Your task to perform on an android device: Open calendar and show me the third week of next month Image 0: 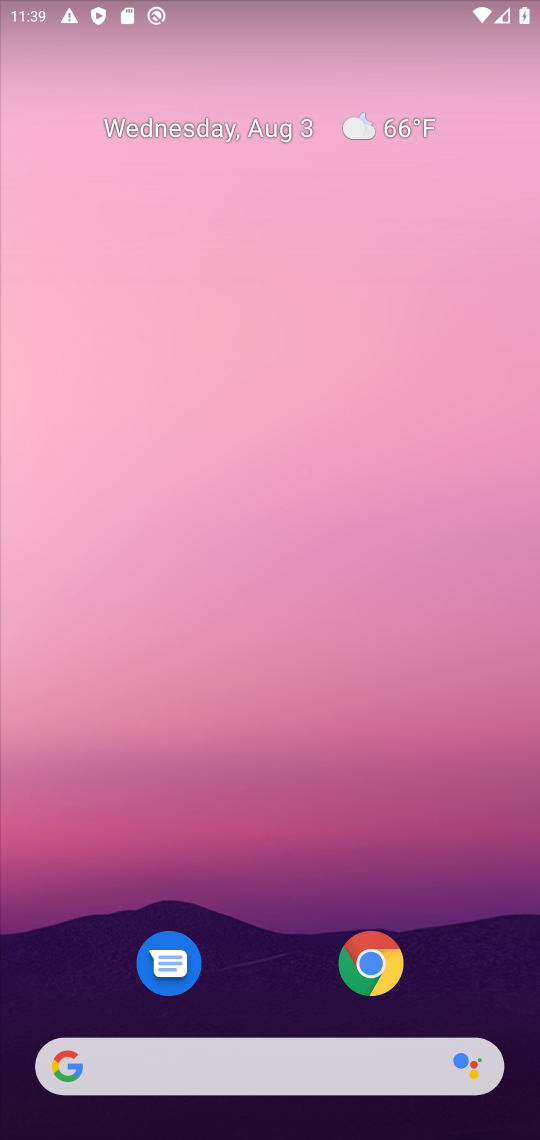
Step 0: drag from (209, 1005) to (332, 347)
Your task to perform on an android device: Open calendar and show me the third week of next month Image 1: 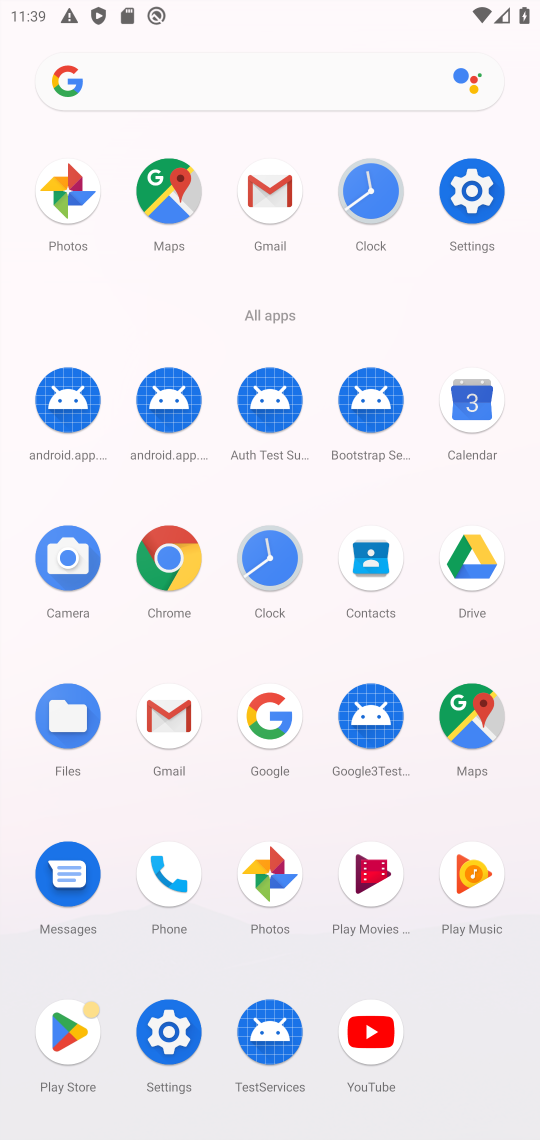
Step 1: click (473, 374)
Your task to perform on an android device: Open calendar and show me the third week of next month Image 2: 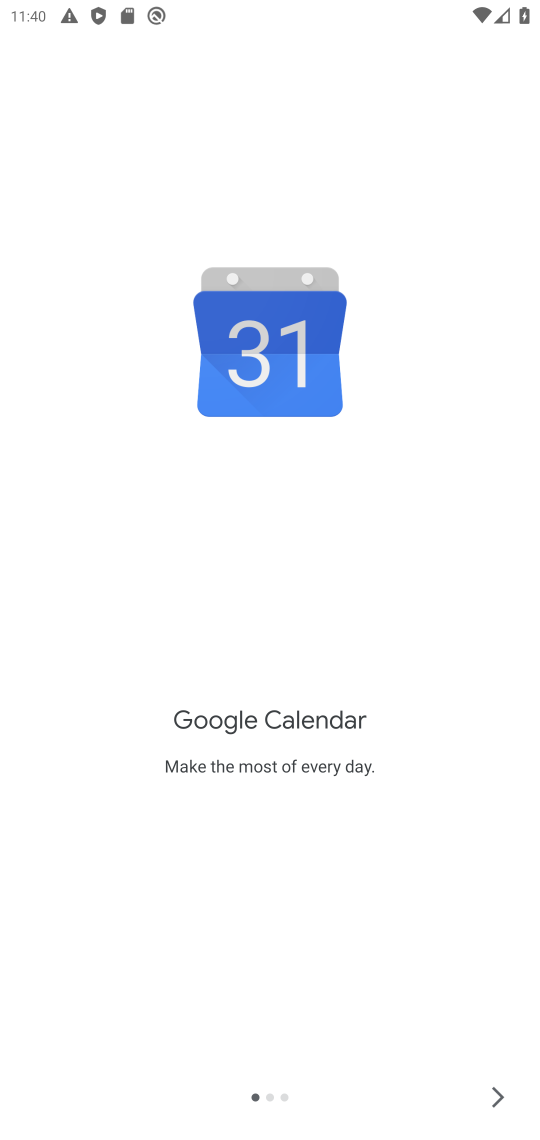
Step 2: click (499, 1088)
Your task to perform on an android device: Open calendar and show me the third week of next month Image 3: 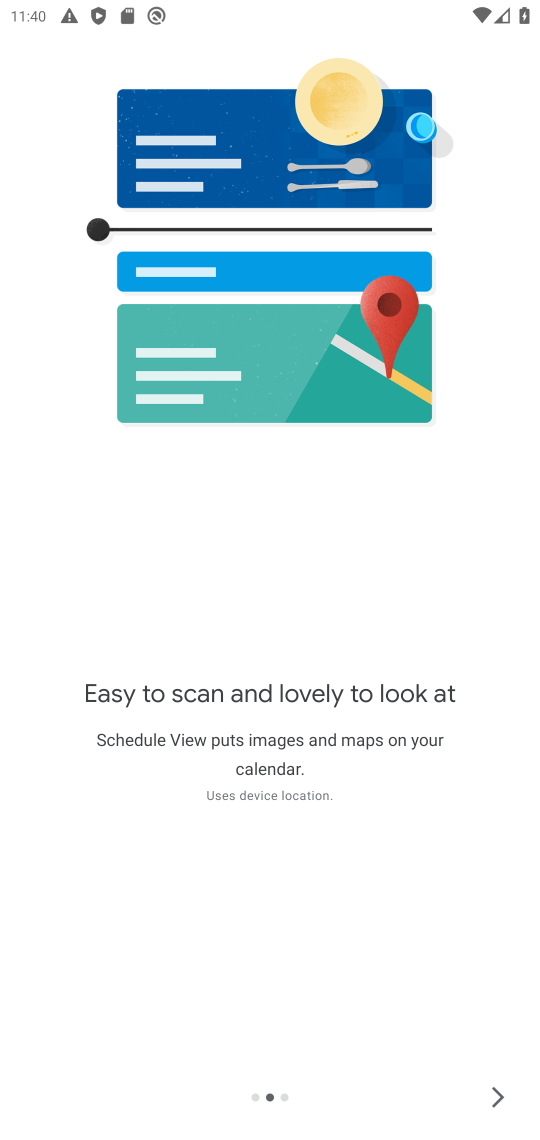
Step 3: click (499, 1088)
Your task to perform on an android device: Open calendar and show me the third week of next month Image 4: 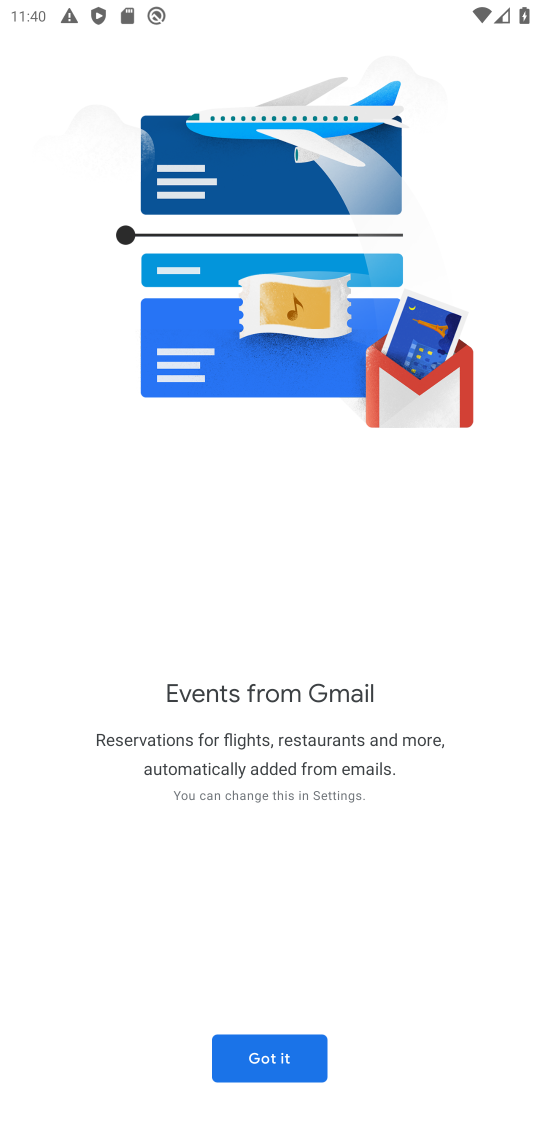
Step 4: click (255, 1041)
Your task to perform on an android device: Open calendar and show me the third week of next month Image 5: 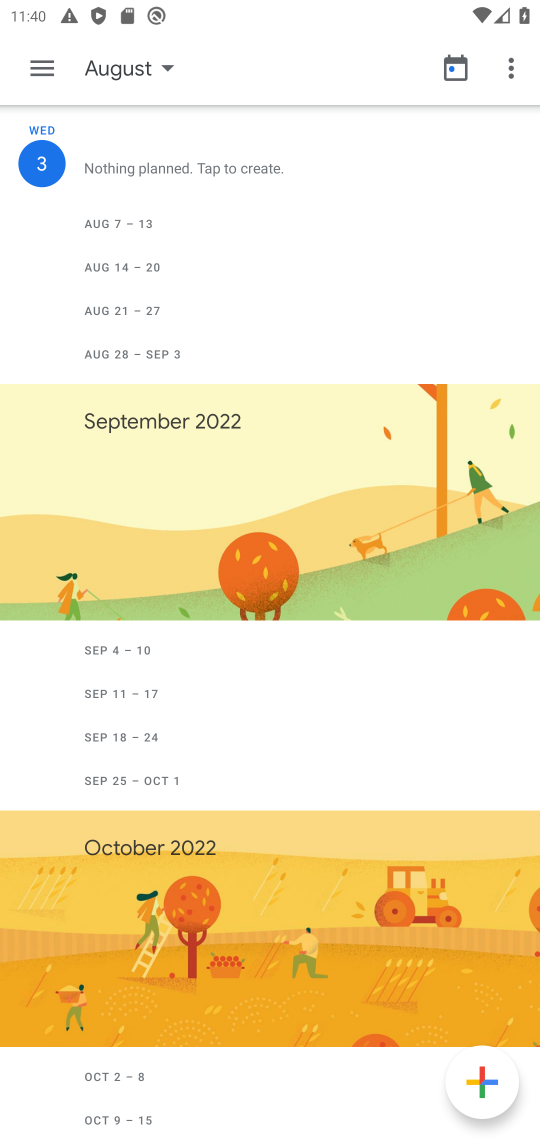
Step 5: click (37, 58)
Your task to perform on an android device: Open calendar and show me the third week of next month Image 6: 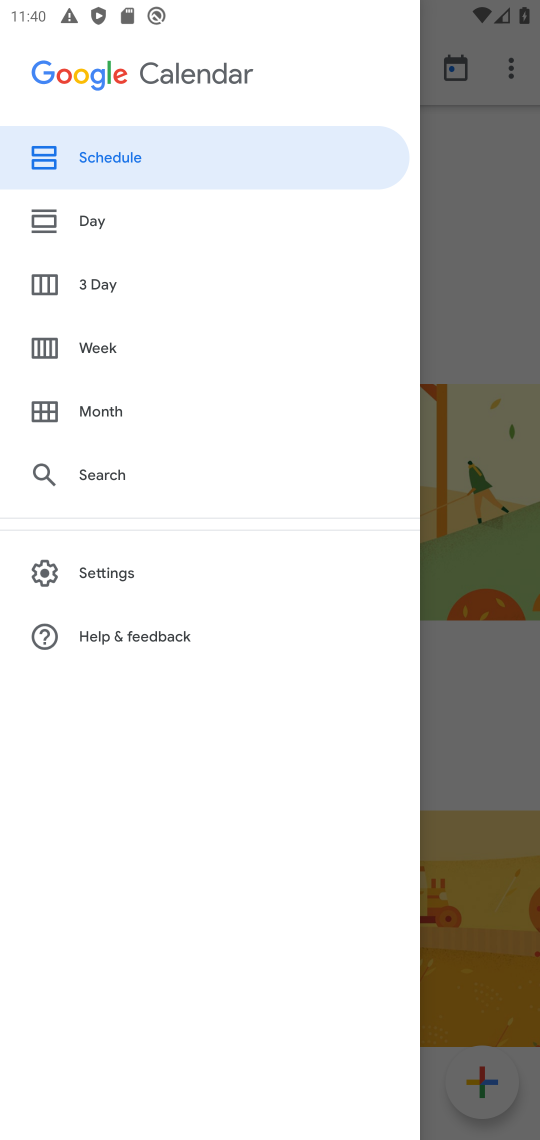
Step 6: click (128, 401)
Your task to perform on an android device: Open calendar and show me the third week of next month Image 7: 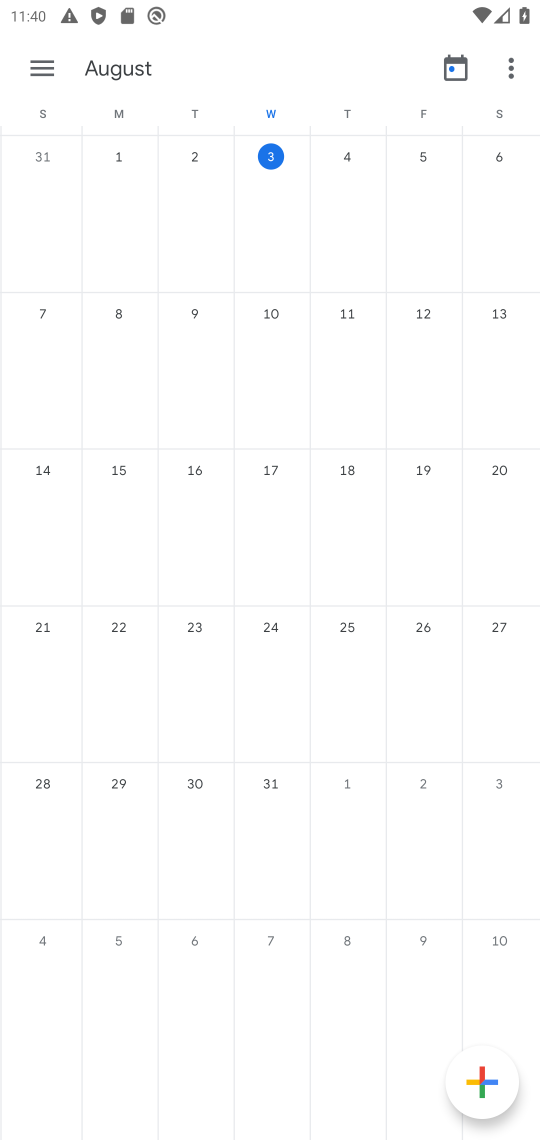
Step 7: click (43, 74)
Your task to perform on an android device: Open calendar and show me the third week of next month Image 8: 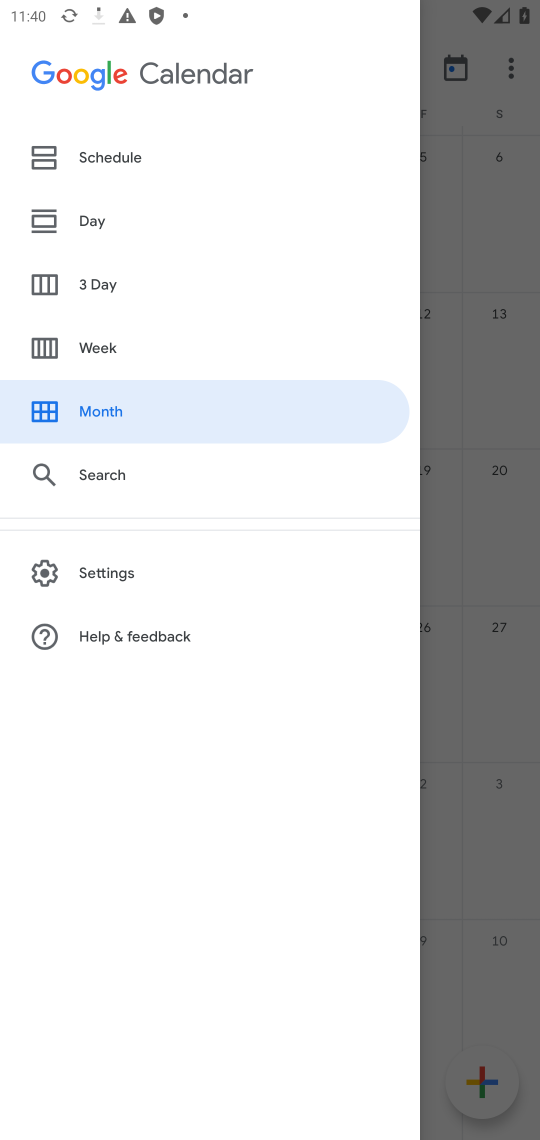
Step 8: click (114, 333)
Your task to perform on an android device: Open calendar and show me the third week of next month Image 9: 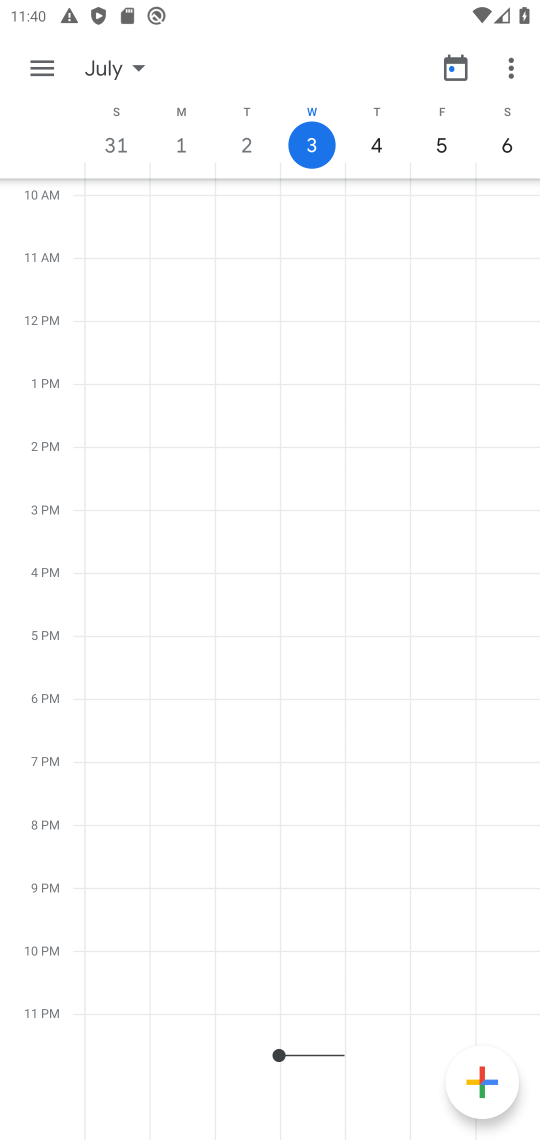
Step 9: task complete